Your task to perform on an android device: Turn on the flashlight Image 0: 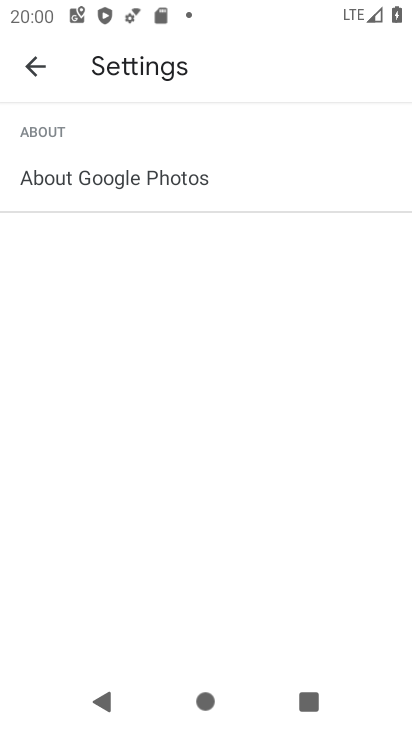
Step 0: press home button
Your task to perform on an android device: Turn on the flashlight Image 1: 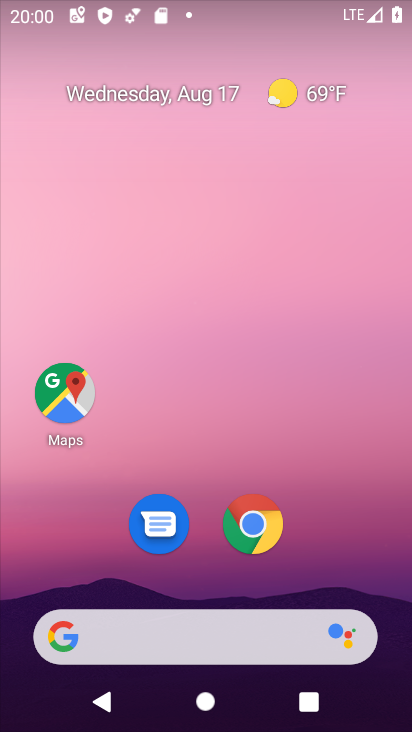
Step 1: drag from (332, 557) to (345, 72)
Your task to perform on an android device: Turn on the flashlight Image 2: 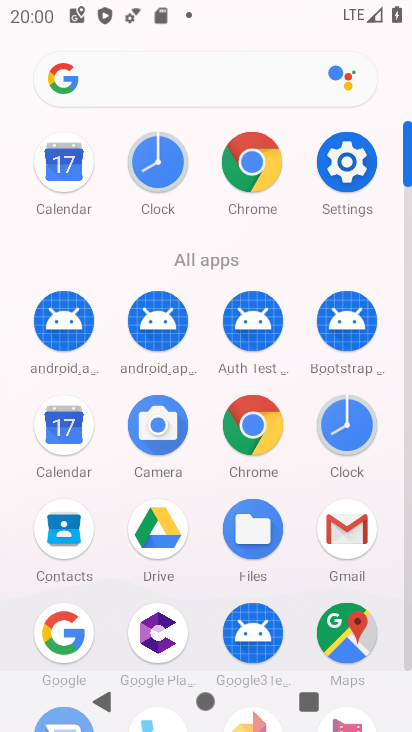
Step 2: click (339, 166)
Your task to perform on an android device: Turn on the flashlight Image 3: 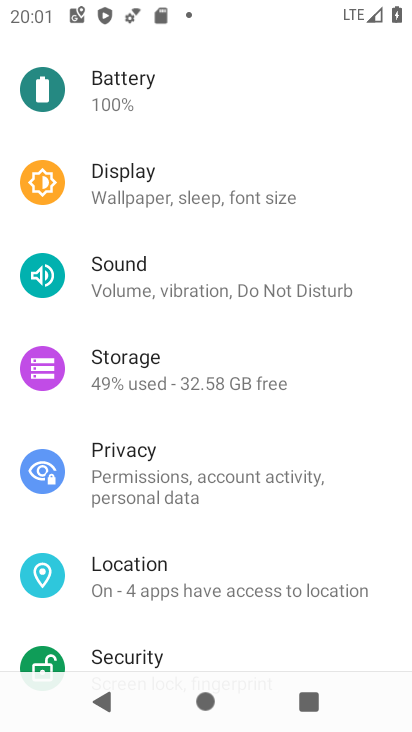
Step 3: drag from (226, 235) to (212, 592)
Your task to perform on an android device: Turn on the flashlight Image 4: 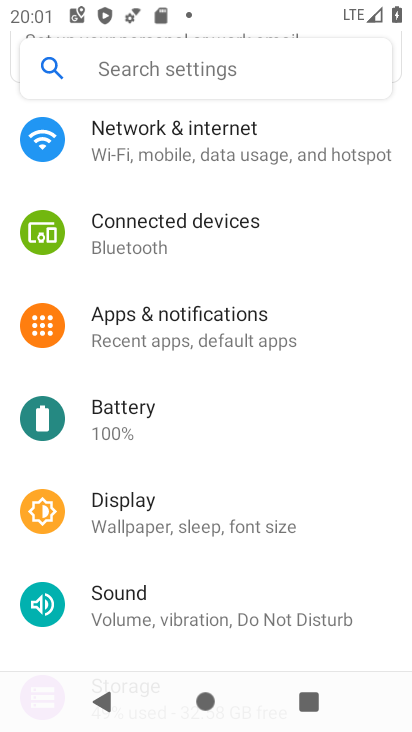
Step 4: drag from (224, 228) to (209, 589)
Your task to perform on an android device: Turn on the flashlight Image 5: 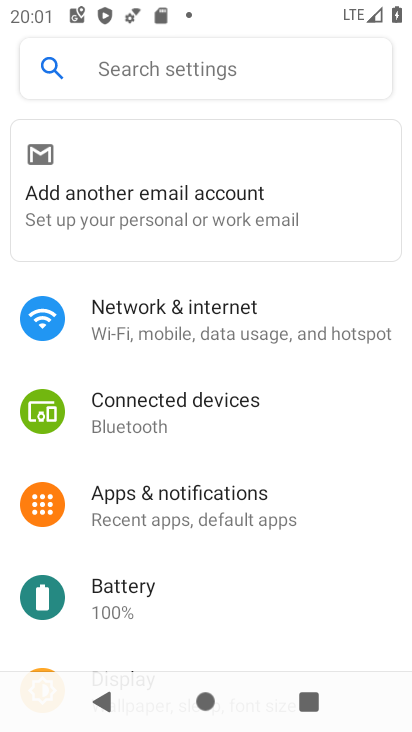
Step 5: click (259, 70)
Your task to perform on an android device: Turn on the flashlight Image 6: 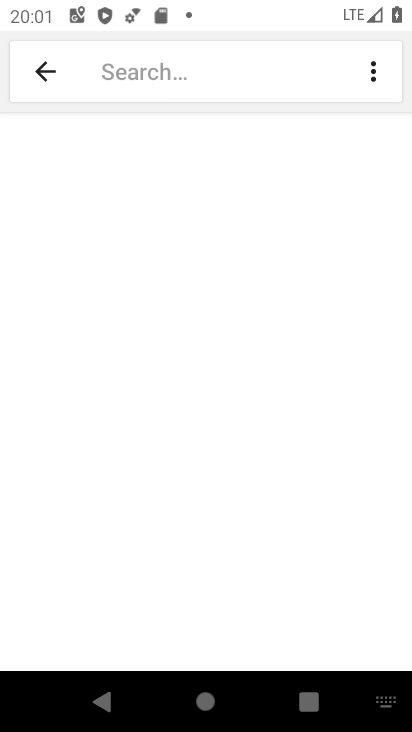
Step 6: type "Flashlight"
Your task to perform on an android device: Turn on the flashlight Image 7: 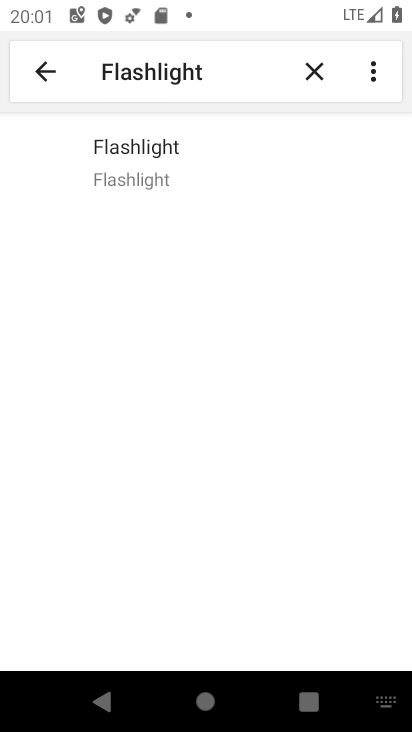
Step 7: click (129, 164)
Your task to perform on an android device: Turn on the flashlight Image 8: 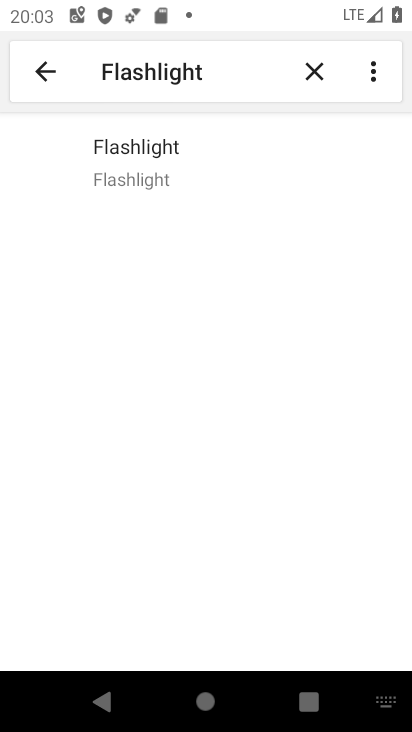
Step 8: task complete